Your task to perform on an android device: Open calendar and show me the third week of next month Image 0: 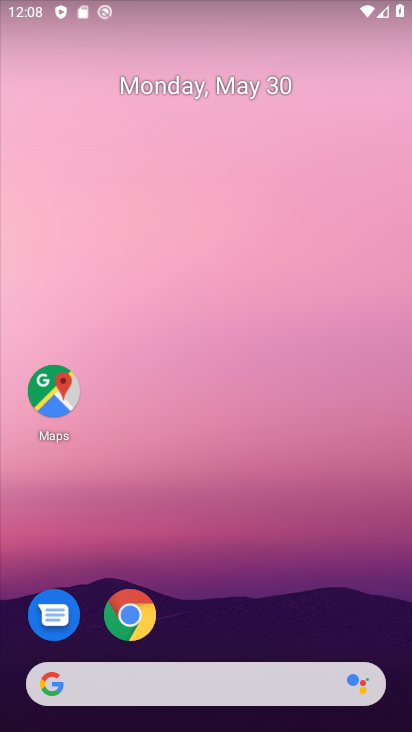
Step 0: drag from (202, 571) to (208, 246)
Your task to perform on an android device: Open calendar and show me the third week of next month Image 1: 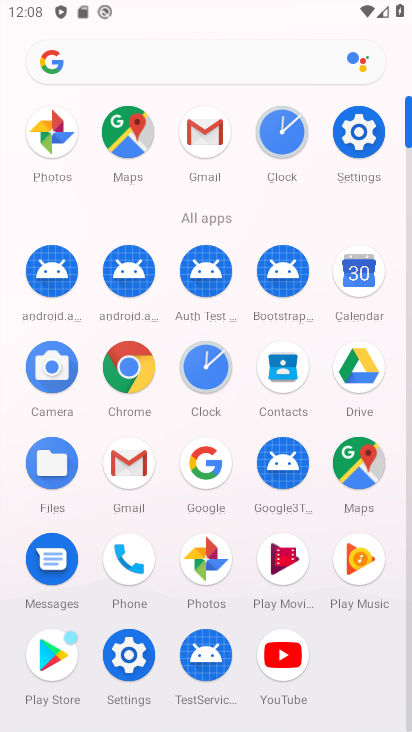
Step 1: click (360, 273)
Your task to perform on an android device: Open calendar and show me the third week of next month Image 2: 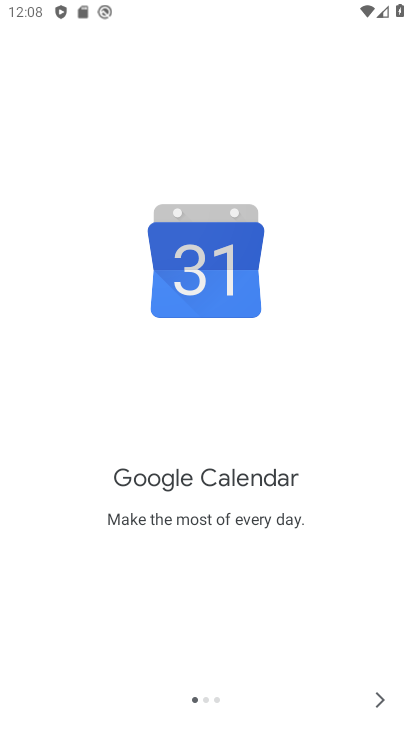
Step 2: click (383, 700)
Your task to perform on an android device: Open calendar and show me the third week of next month Image 3: 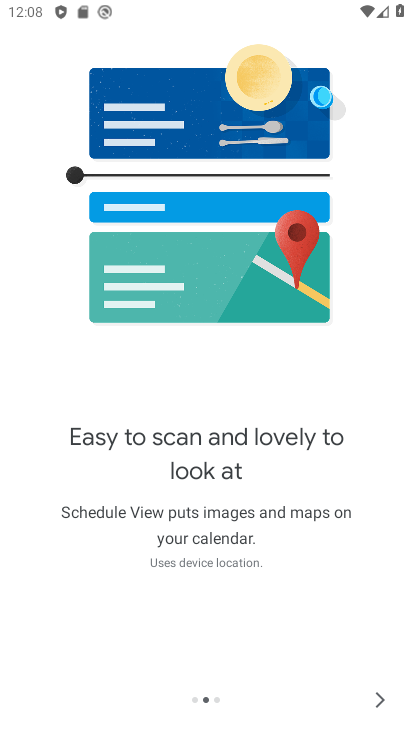
Step 3: click (381, 700)
Your task to perform on an android device: Open calendar and show me the third week of next month Image 4: 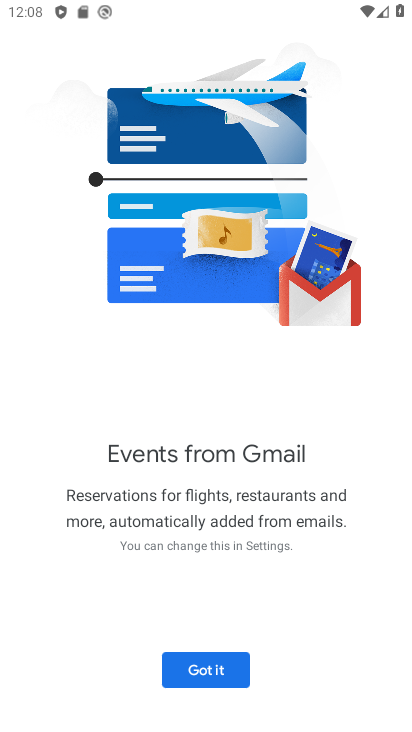
Step 4: click (177, 680)
Your task to perform on an android device: Open calendar and show me the third week of next month Image 5: 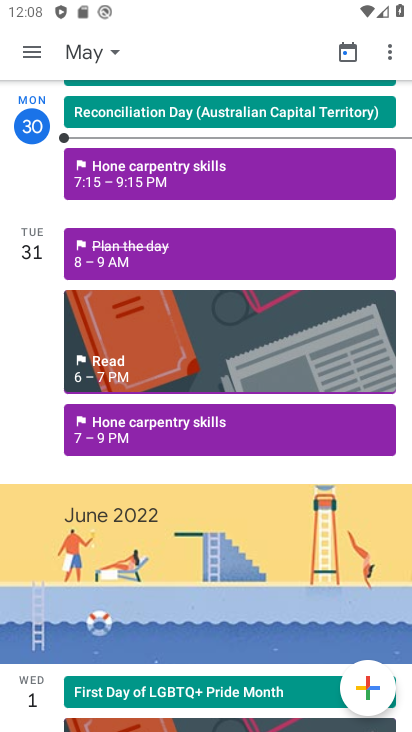
Step 5: click (103, 45)
Your task to perform on an android device: Open calendar and show me the third week of next month Image 6: 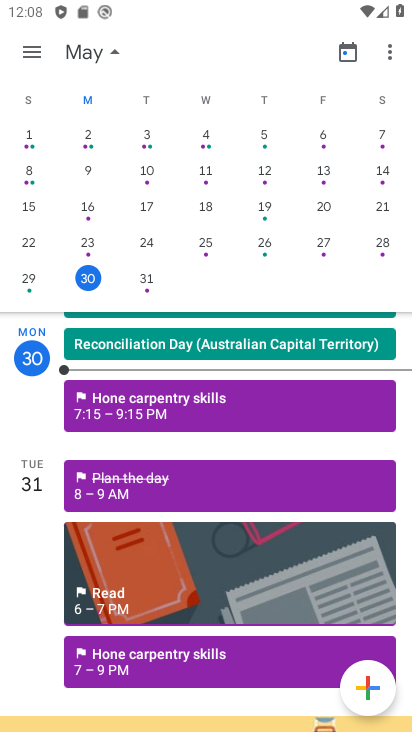
Step 6: drag from (378, 203) to (0, 282)
Your task to perform on an android device: Open calendar and show me the third week of next month Image 7: 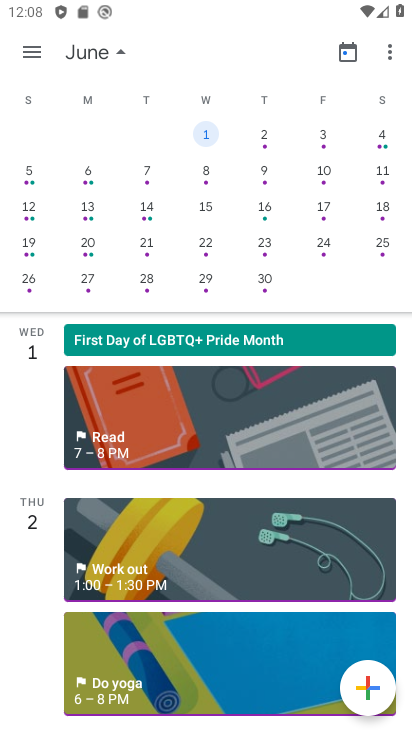
Step 7: click (30, 200)
Your task to perform on an android device: Open calendar and show me the third week of next month Image 8: 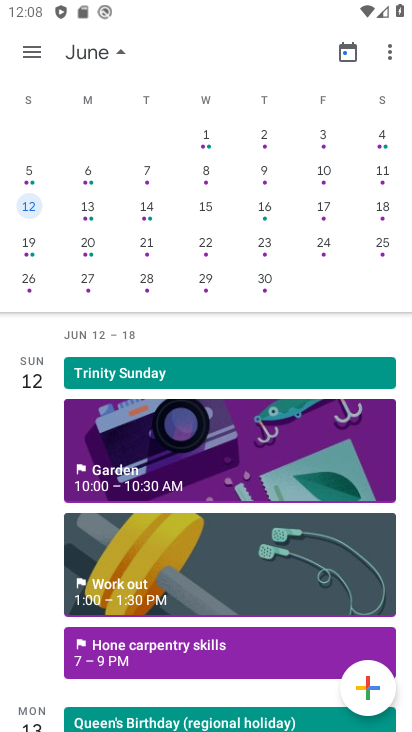
Step 8: task complete